Your task to perform on an android device: Go to Wikipedia Image 0: 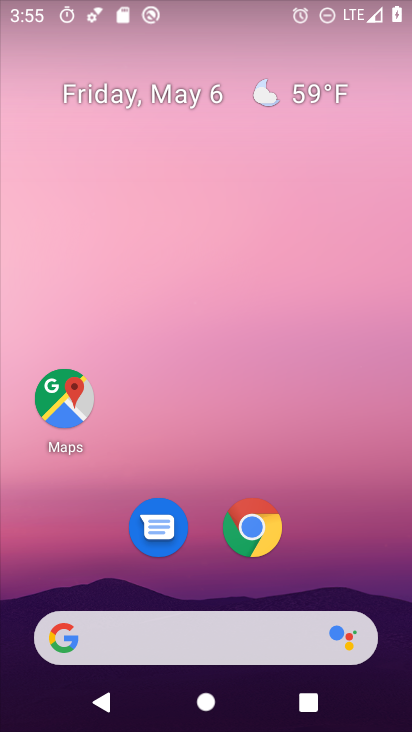
Step 0: click (262, 523)
Your task to perform on an android device: Go to Wikipedia Image 1: 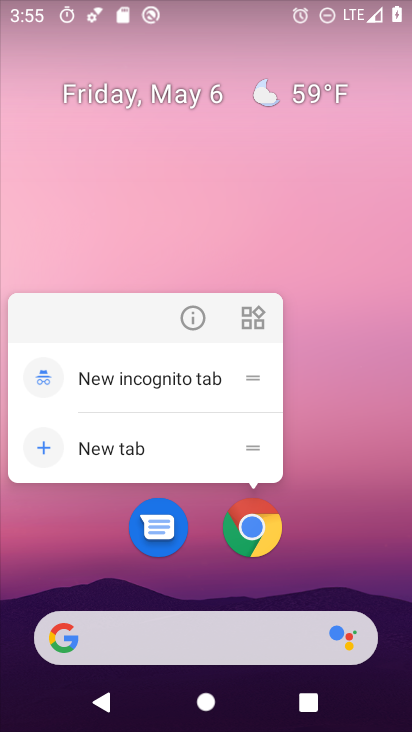
Step 1: click (258, 518)
Your task to perform on an android device: Go to Wikipedia Image 2: 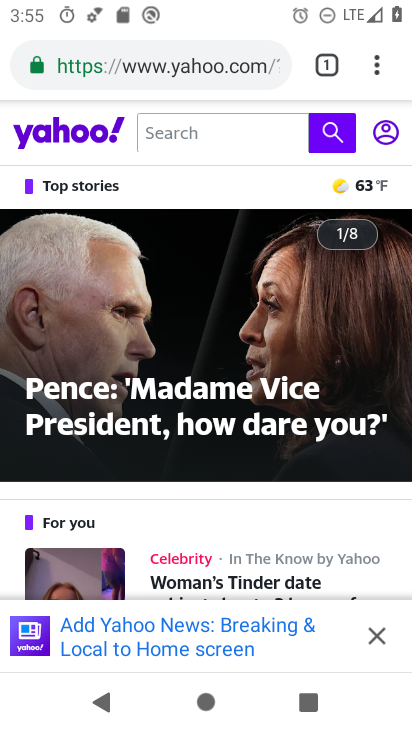
Step 2: click (207, 59)
Your task to perform on an android device: Go to Wikipedia Image 3: 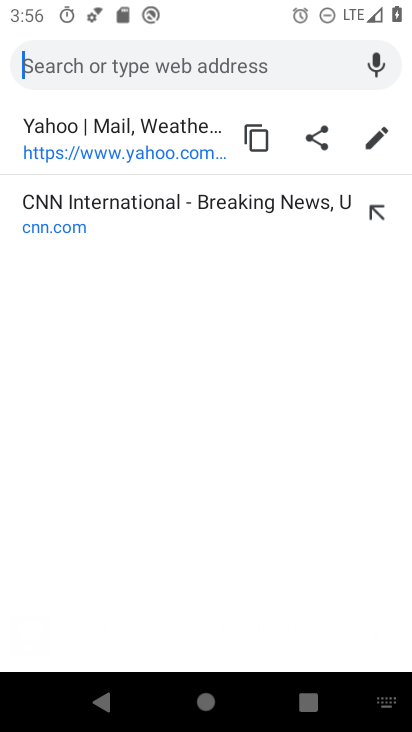
Step 3: type "wikipedia"
Your task to perform on an android device: Go to Wikipedia Image 4: 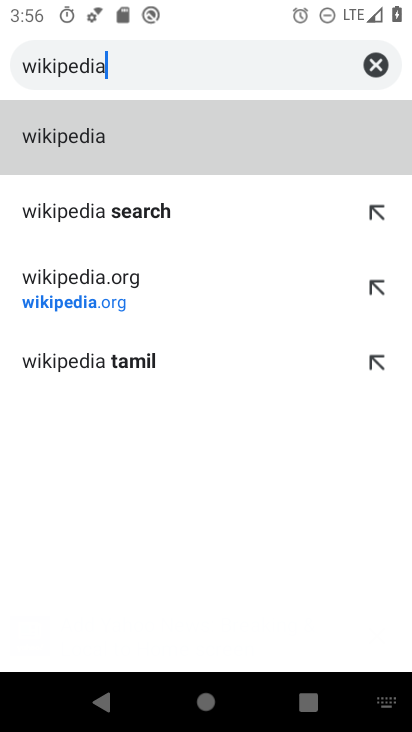
Step 4: click (72, 127)
Your task to perform on an android device: Go to Wikipedia Image 5: 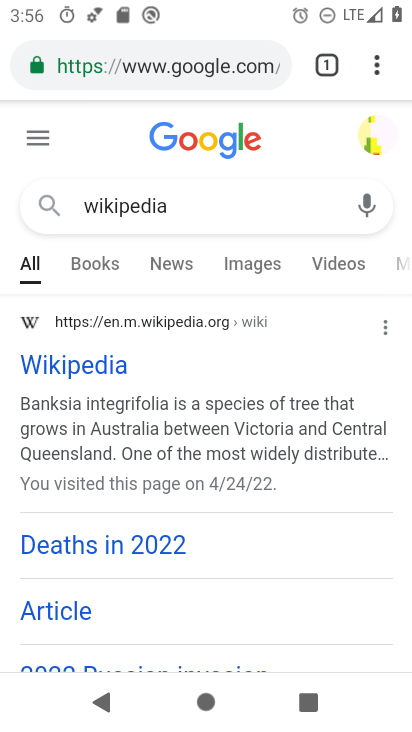
Step 5: click (70, 359)
Your task to perform on an android device: Go to Wikipedia Image 6: 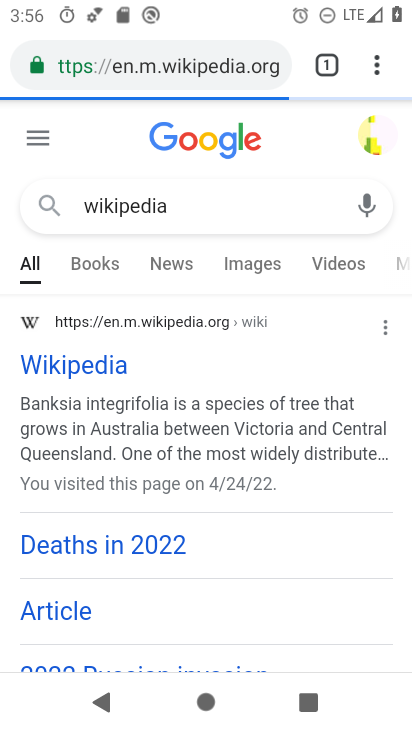
Step 6: click (69, 365)
Your task to perform on an android device: Go to Wikipedia Image 7: 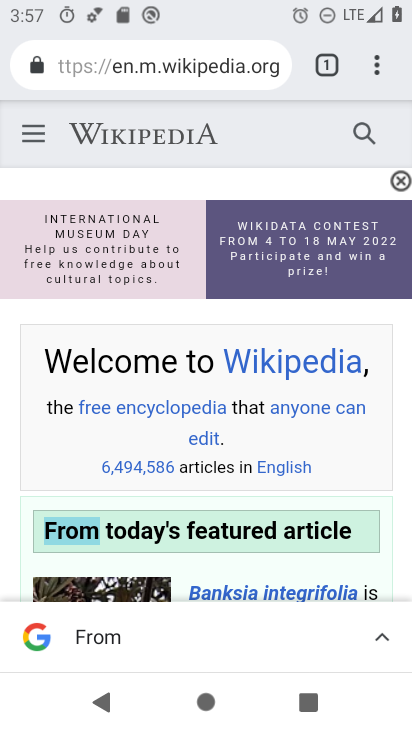
Step 7: task complete